Your task to perform on an android device: What is the recent news? Image 0: 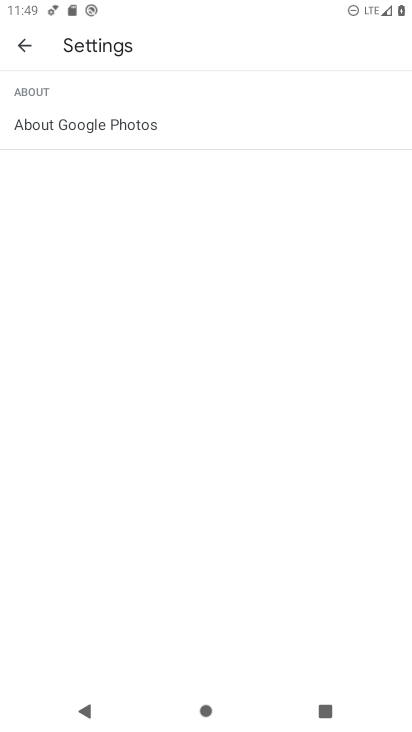
Step 0: press home button
Your task to perform on an android device: What is the recent news? Image 1: 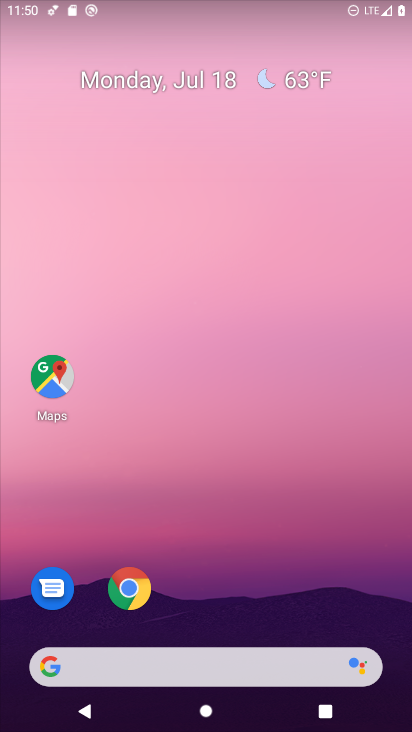
Step 1: drag from (173, 643) to (254, 254)
Your task to perform on an android device: What is the recent news? Image 2: 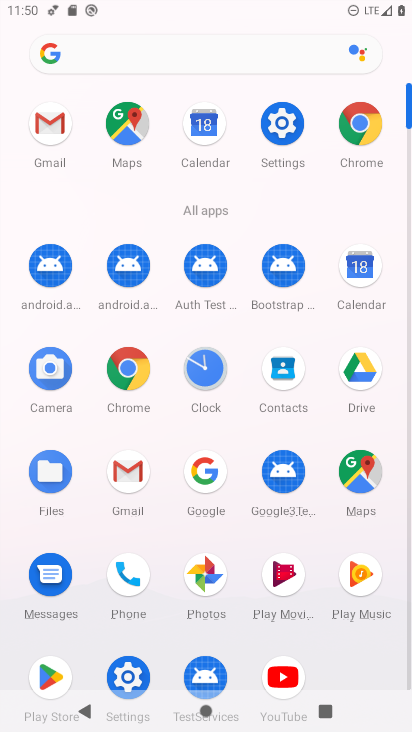
Step 2: click (199, 479)
Your task to perform on an android device: What is the recent news? Image 3: 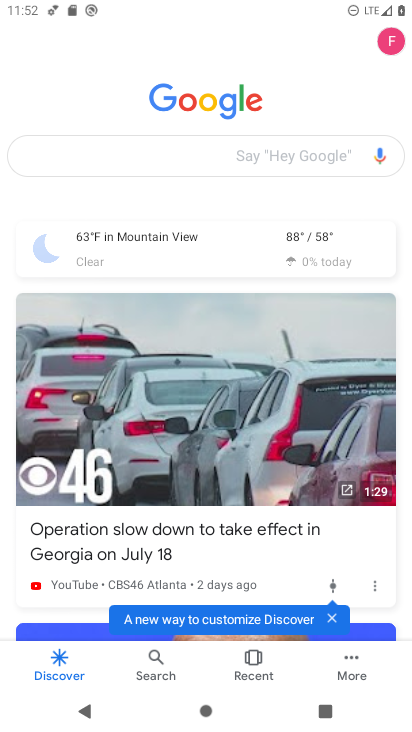
Step 3: click (197, 156)
Your task to perform on an android device: What is the recent news? Image 4: 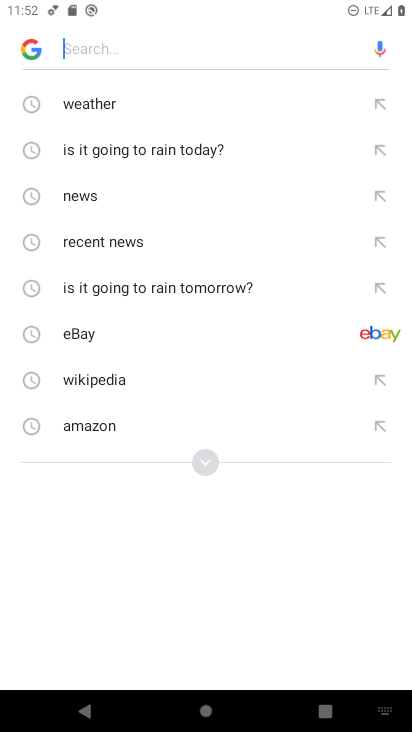
Step 4: click (84, 242)
Your task to perform on an android device: What is the recent news? Image 5: 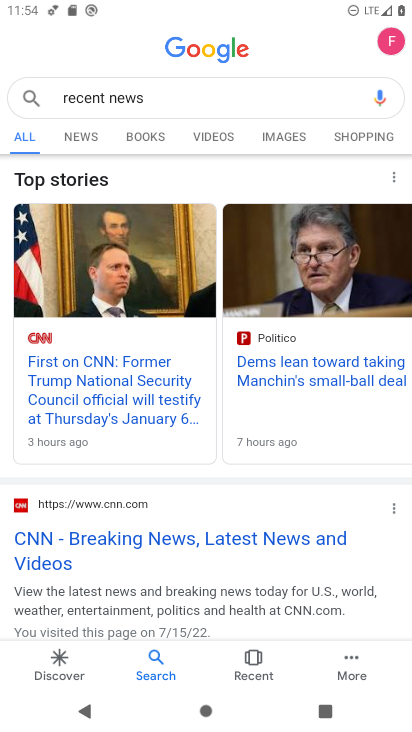
Step 5: task complete